Your task to perform on an android device: Go to battery settings Image 0: 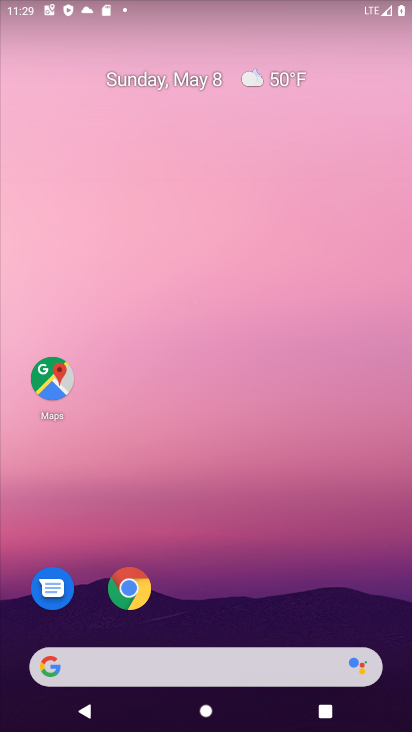
Step 0: drag from (262, 583) to (199, 24)
Your task to perform on an android device: Go to battery settings Image 1: 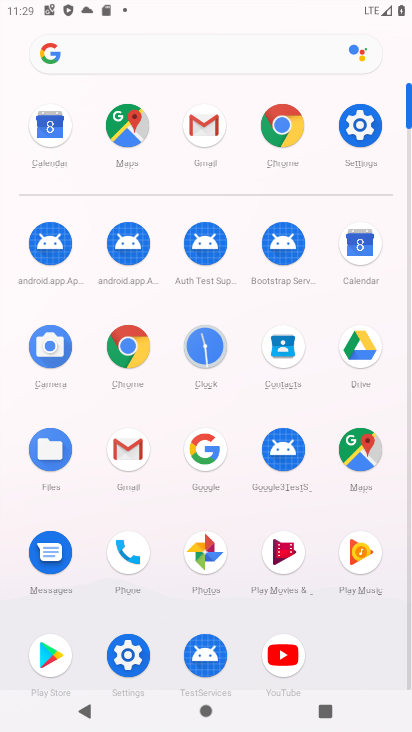
Step 1: click (364, 127)
Your task to perform on an android device: Go to battery settings Image 2: 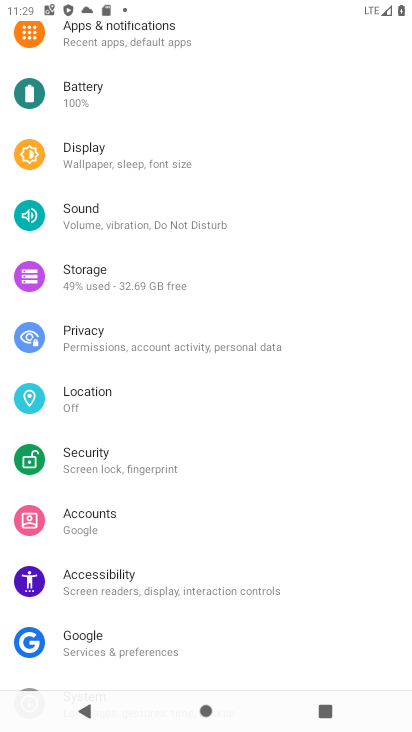
Step 2: drag from (187, 171) to (213, 552)
Your task to perform on an android device: Go to battery settings Image 3: 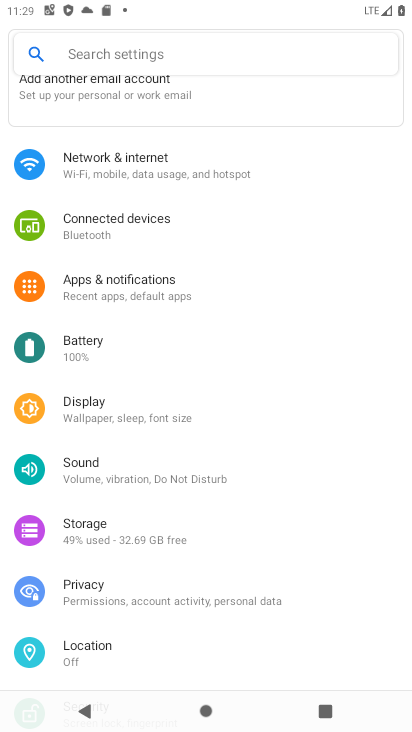
Step 3: click (101, 345)
Your task to perform on an android device: Go to battery settings Image 4: 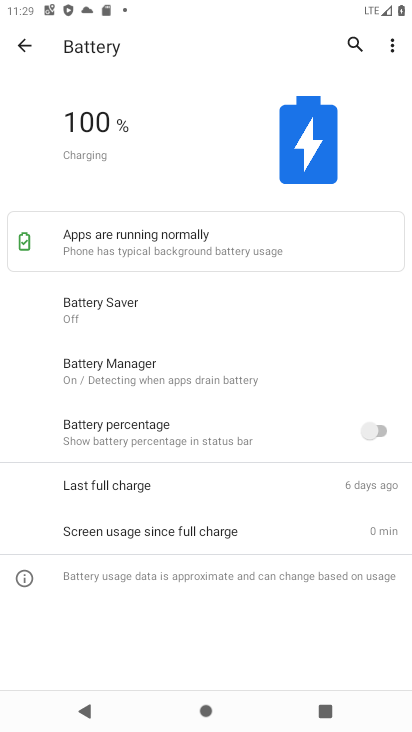
Step 4: task complete